Your task to perform on an android device: turn off improve location accuracy Image 0: 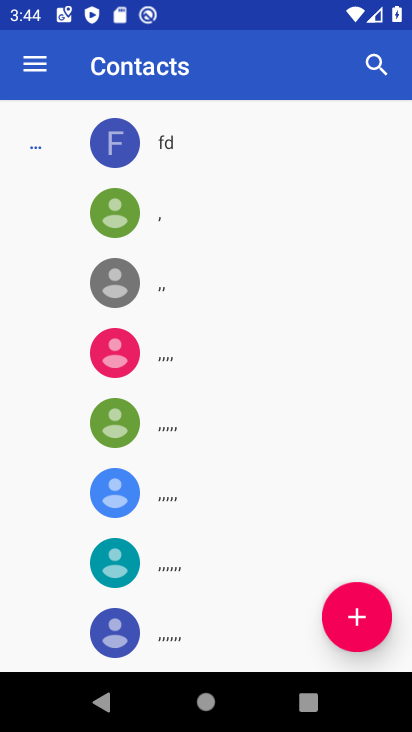
Step 0: press home button
Your task to perform on an android device: turn off improve location accuracy Image 1: 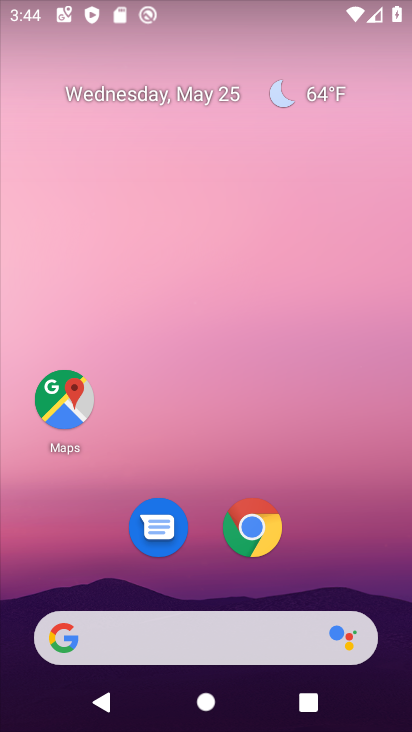
Step 1: drag from (168, 576) to (215, 91)
Your task to perform on an android device: turn off improve location accuracy Image 2: 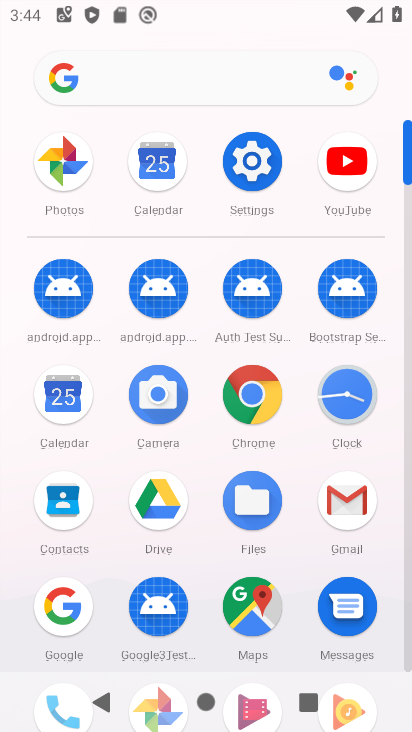
Step 2: click (254, 154)
Your task to perform on an android device: turn off improve location accuracy Image 3: 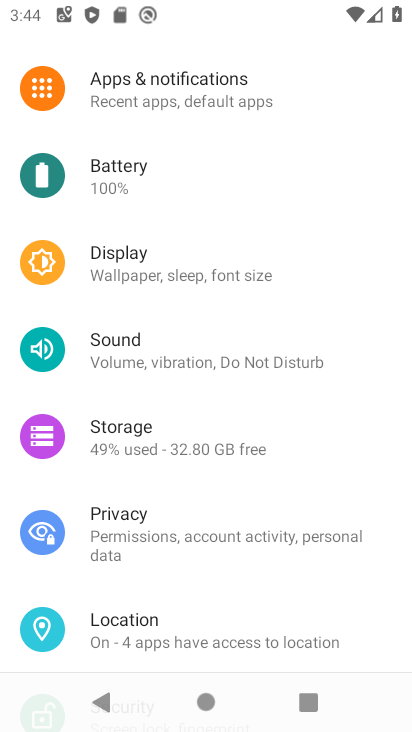
Step 3: click (132, 626)
Your task to perform on an android device: turn off improve location accuracy Image 4: 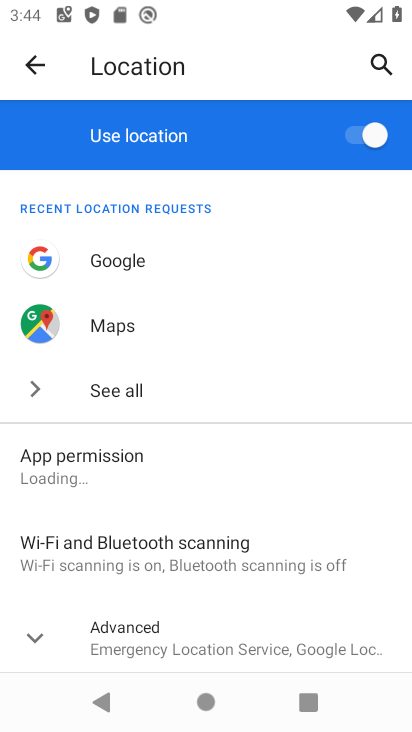
Step 4: drag from (163, 599) to (231, 258)
Your task to perform on an android device: turn off improve location accuracy Image 5: 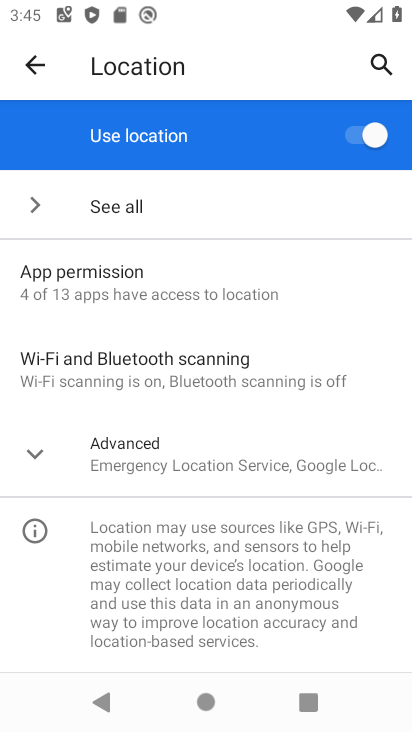
Step 5: click (147, 440)
Your task to perform on an android device: turn off improve location accuracy Image 6: 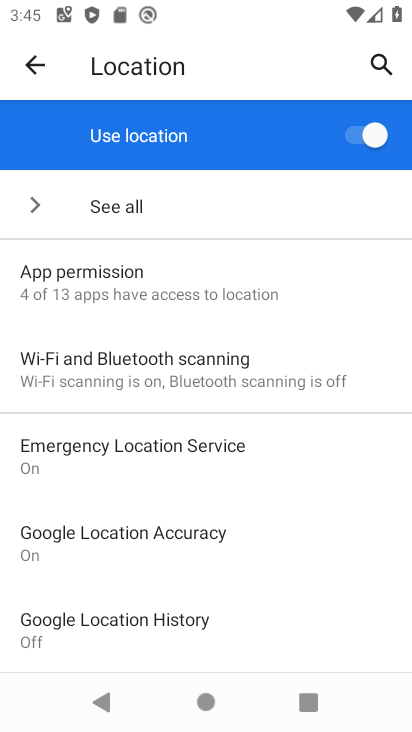
Step 6: click (179, 534)
Your task to perform on an android device: turn off improve location accuracy Image 7: 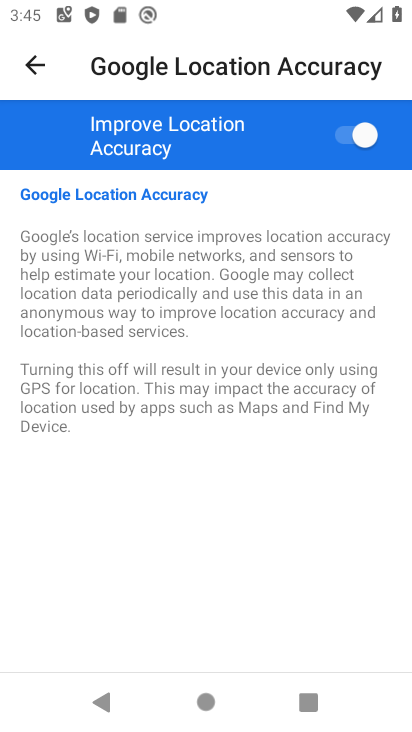
Step 7: click (358, 136)
Your task to perform on an android device: turn off improve location accuracy Image 8: 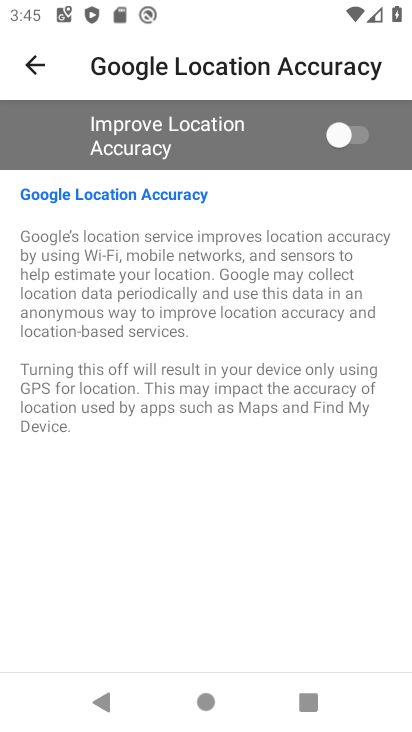
Step 8: task complete